Your task to perform on an android device: Go to Maps Image 0: 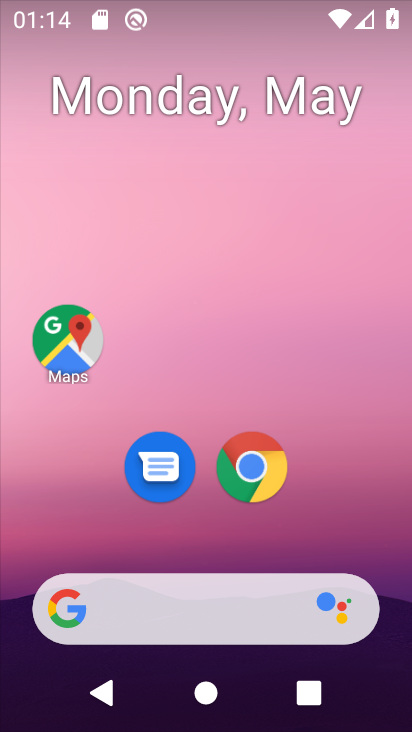
Step 0: drag from (174, 560) to (113, 60)
Your task to perform on an android device: Go to Maps Image 1: 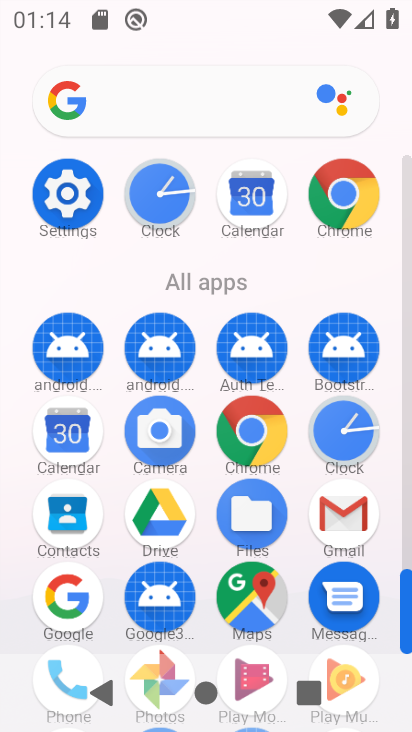
Step 1: click (255, 598)
Your task to perform on an android device: Go to Maps Image 2: 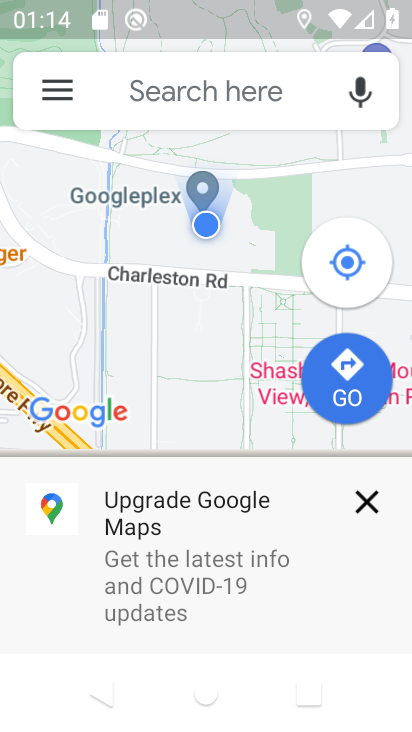
Step 2: task complete